Your task to perform on an android device: open the mobile data screen to see how much data has been used Image 0: 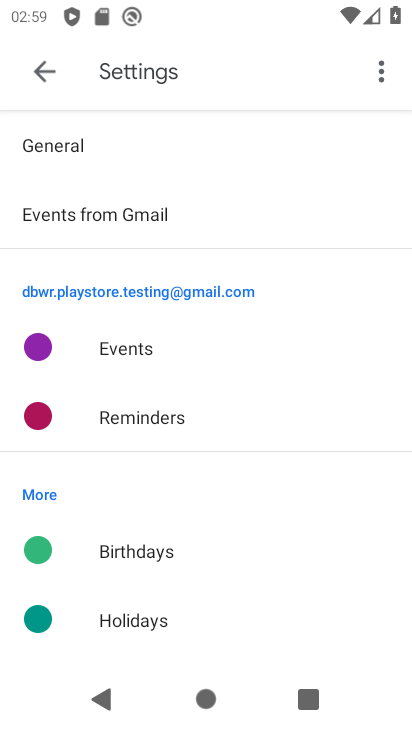
Step 0: drag from (264, 586) to (334, 174)
Your task to perform on an android device: open the mobile data screen to see how much data has been used Image 1: 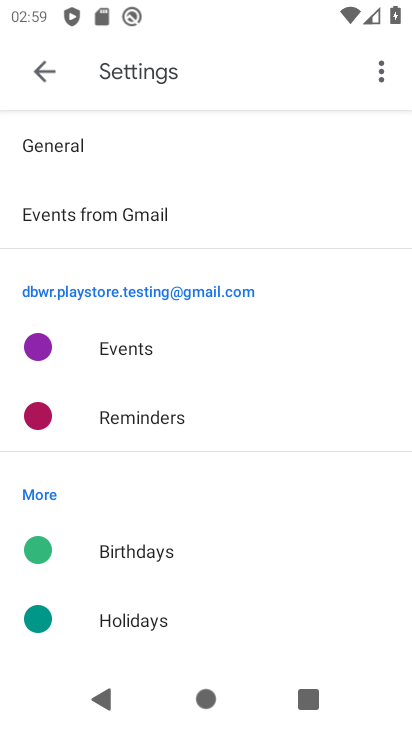
Step 1: drag from (169, 569) to (270, 100)
Your task to perform on an android device: open the mobile data screen to see how much data has been used Image 2: 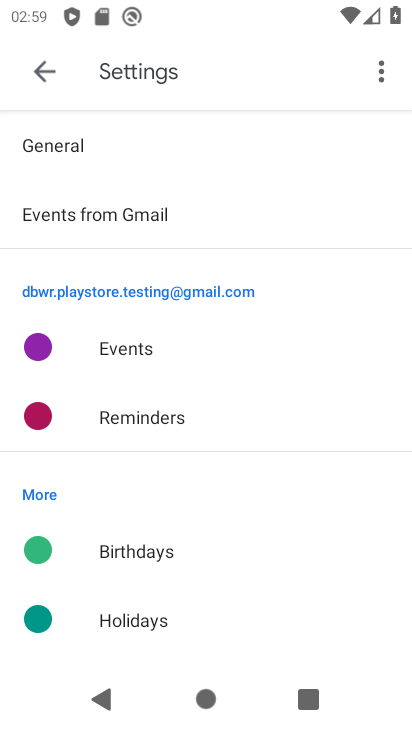
Step 2: drag from (246, 245) to (263, 689)
Your task to perform on an android device: open the mobile data screen to see how much data has been used Image 3: 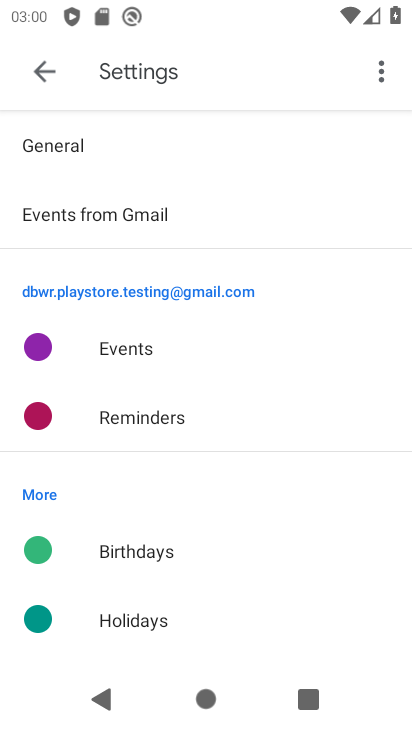
Step 3: press home button
Your task to perform on an android device: open the mobile data screen to see how much data has been used Image 4: 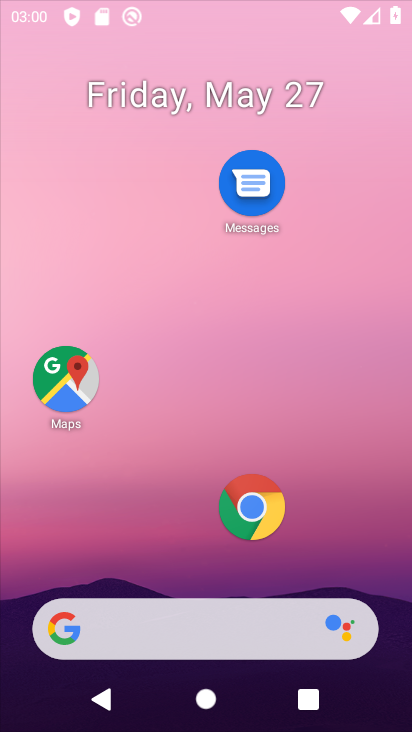
Step 4: drag from (148, 529) to (264, 6)
Your task to perform on an android device: open the mobile data screen to see how much data has been used Image 5: 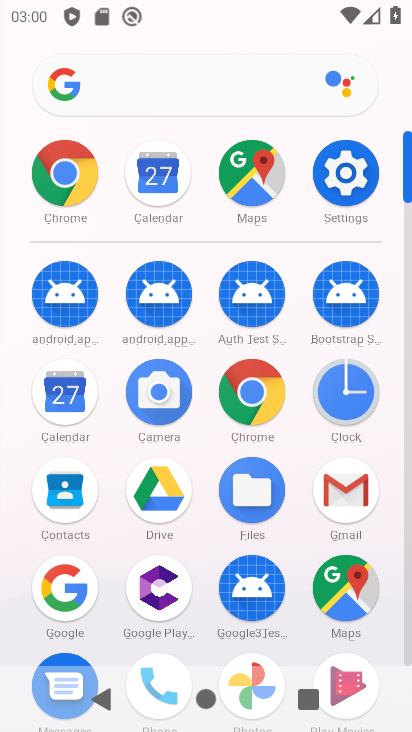
Step 5: click (353, 176)
Your task to perform on an android device: open the mobile data screen to see how much data has been used Image 6: 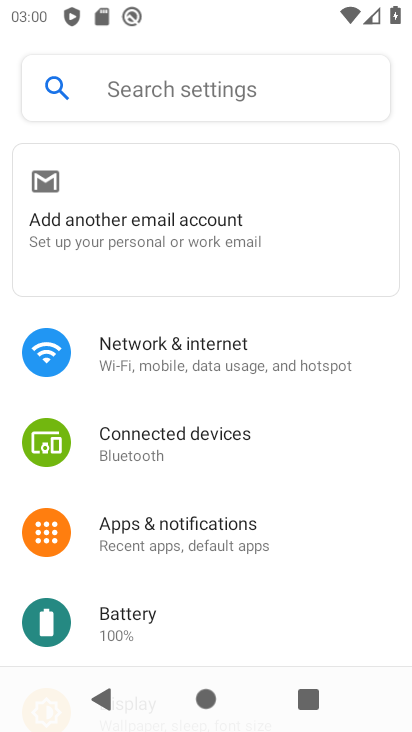
Step 6: drag from (217, 589) to (292, 122)
Your task to perform on an android device: open the mobile data screen to see how much data has been used Image 7: 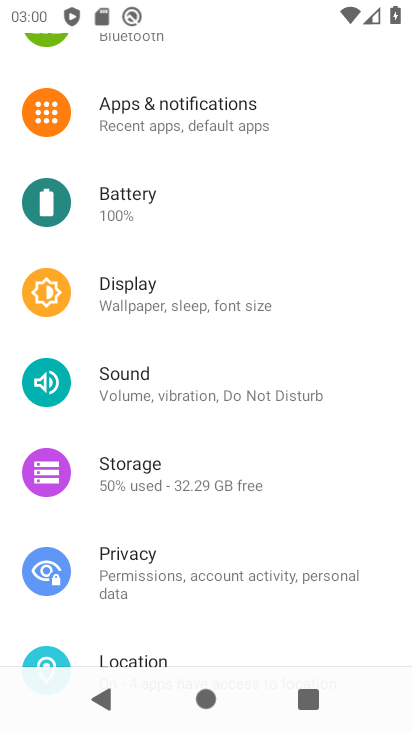
Step 7: drag from (179, 102) to (187, 357)
Your task to perform on an android device: open the mobile data screen to see how much data has been used Image 8: 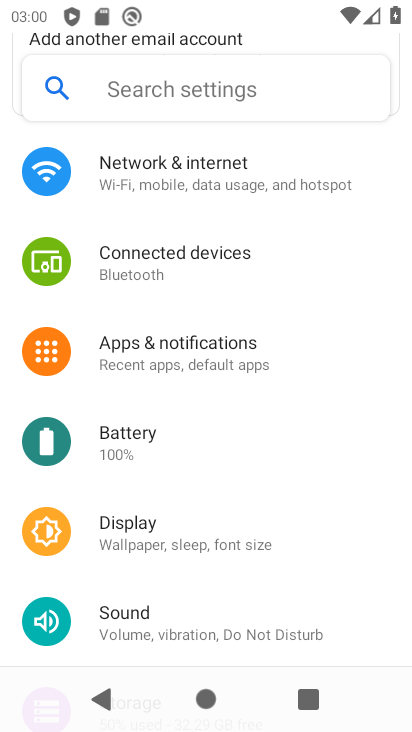
Step 8: drag from (181, 178) to (301, 431)
Your task to perform on an android device: open the mobile data screen to see how much data has been used Image 9: 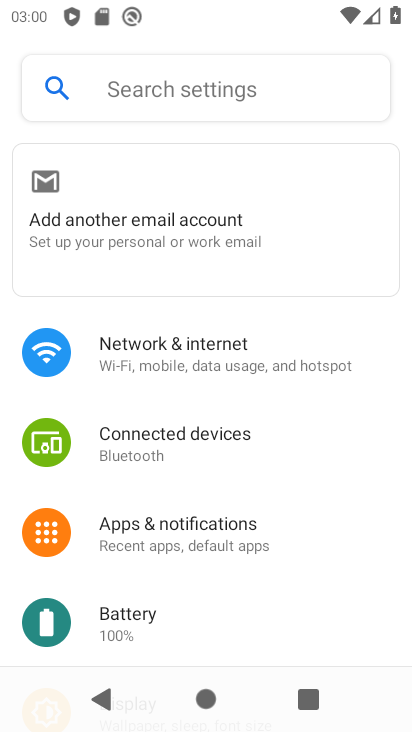
Step 9: click (176, 353)
Your task to perform on an android device: open the mobile data screen to see how much data has been used Image 10: 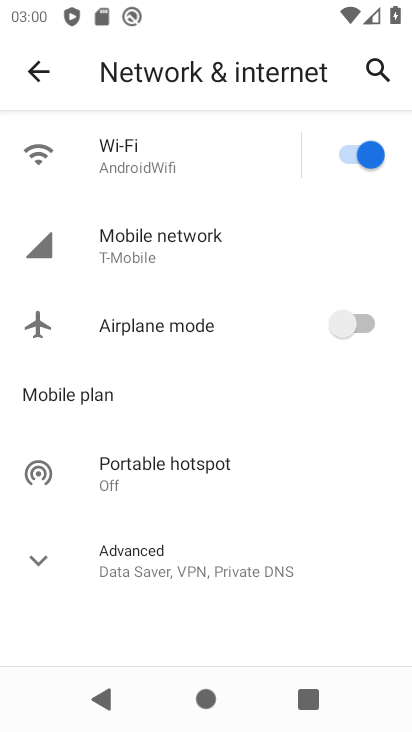
Step 10: click (190, 233)
Your task to perform on an android device: open the mobile data screen to see how much data has been used Image 11: 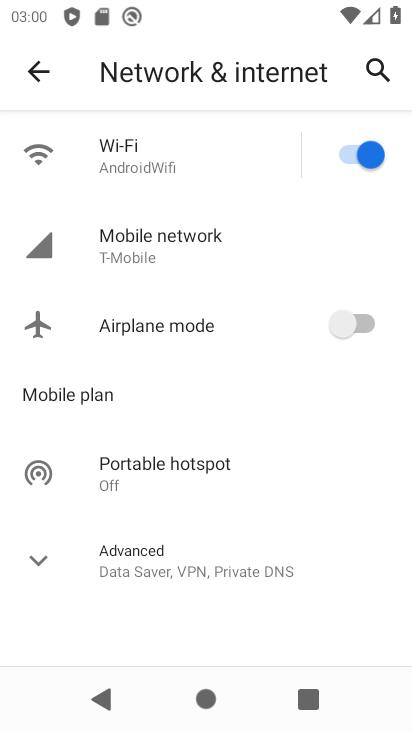
Step 11: task complete